Your task to perform on an android device: Open Wikipedia Image 0: 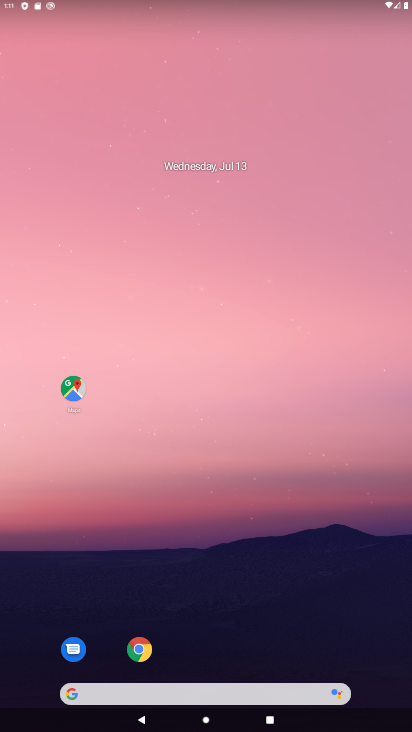
Step 0: click (142, 650)
Your task to perform on an android device: Open Wikipedia Image 1: 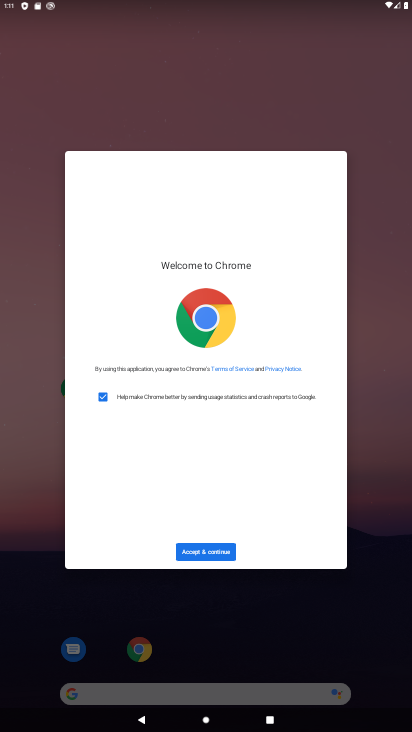
Step 1: click (195, 542)
Your task to perform on an android device: Open Wikipedia Image 2: 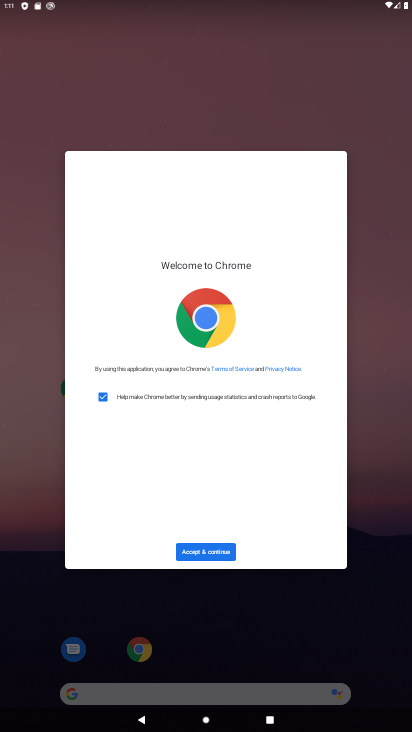
Step 2: click (184, 547)
Your task to perform on an android device: Open Wikipedia Image 3: 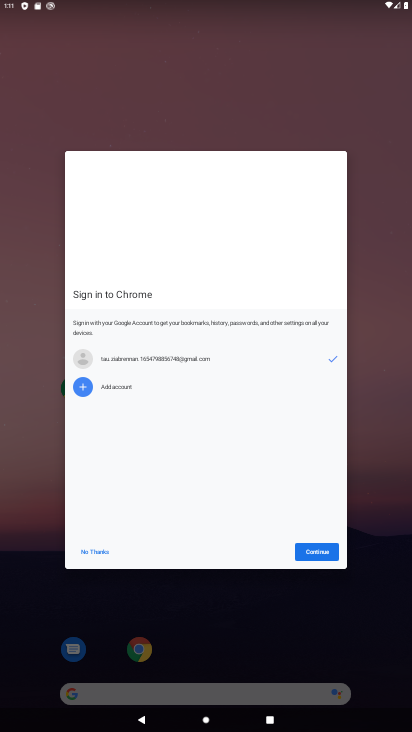
Step 3: click (322, 548)
Your task to perform on an android device: Open Wikipedia Image 4: 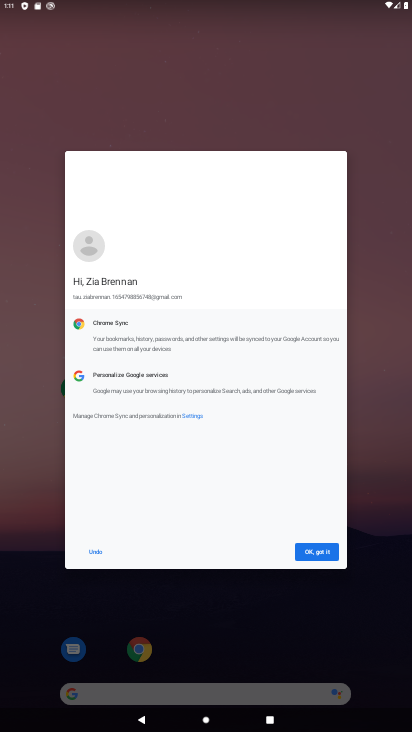
Step 4: click (322, 548)
Your task to perform on an android device: Open Wikipedia Image 5: 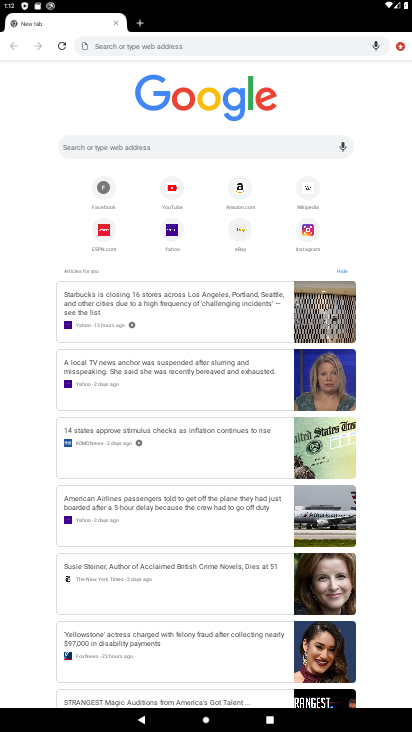
Step 5: click (306, 188)
Your task to perform on an android device: Open Wikipedia Image 6: 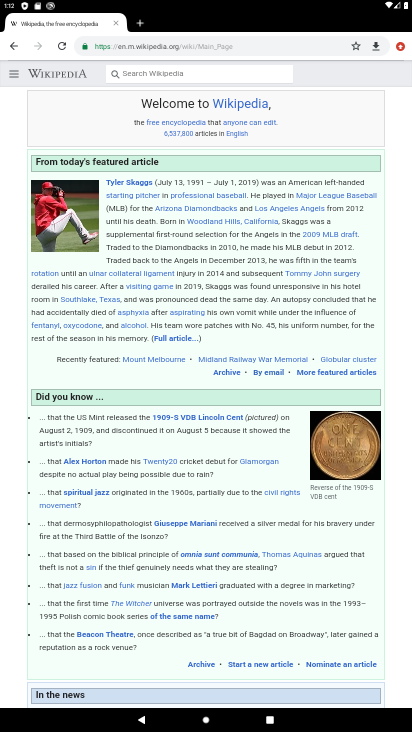
Step 6: task complete